Your task to perform on an android device: Go to eBay Image 0: 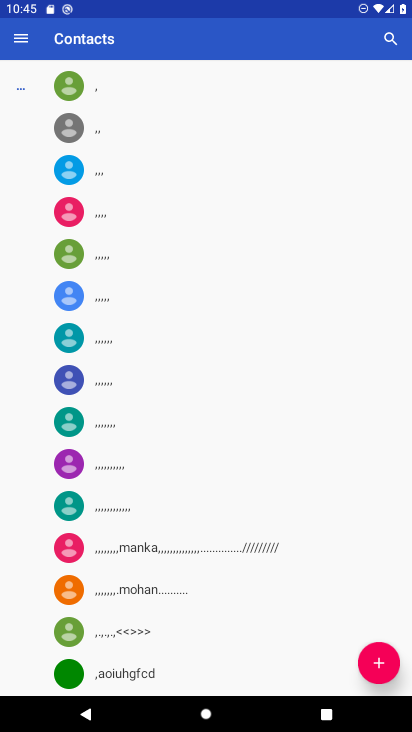
Step 0: press home button
Your task to perform on an android device: Go to eBay Image 1: 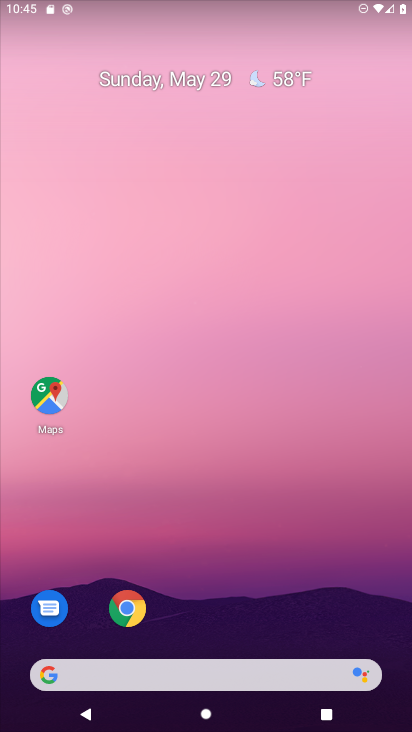
Step 1: drag from (125, 644) to (168, 219)
Your task to perform on an android device: Go to eBay Image 2: 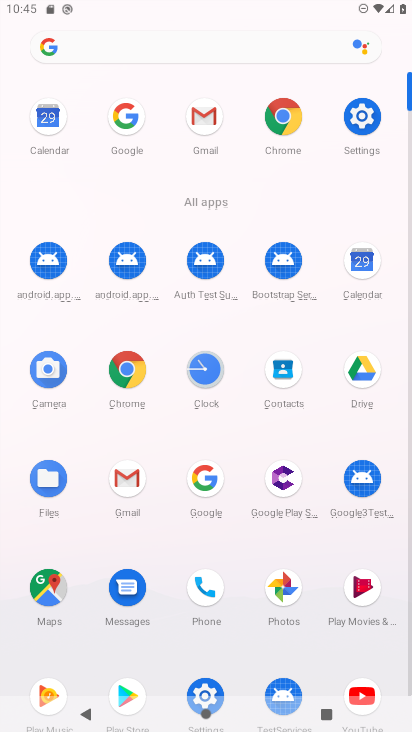
Step 2: click (122, 124)
Your task to perform on an android device: Go to eBay Image 3: 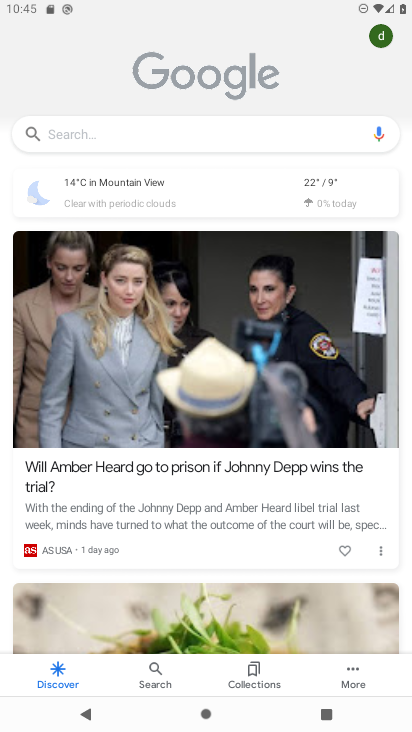
Step 3: drag from (138, 143) to (47, 143)
Your task to perform on an android device: Go to eBay Image 4: 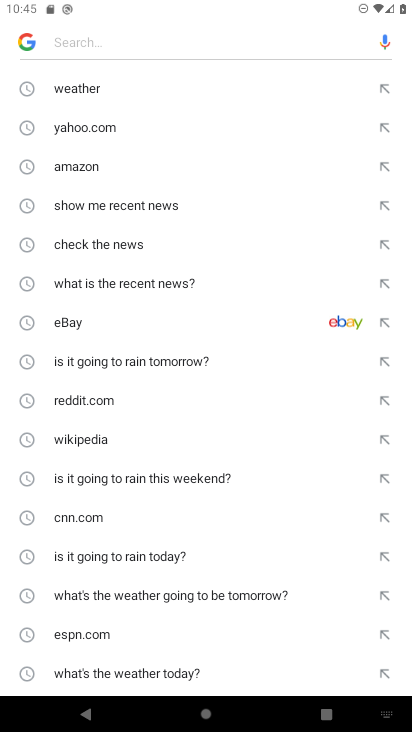
Step 4: click (88, 325)
Your task to perform on an android device: Go to eBay Image 5: 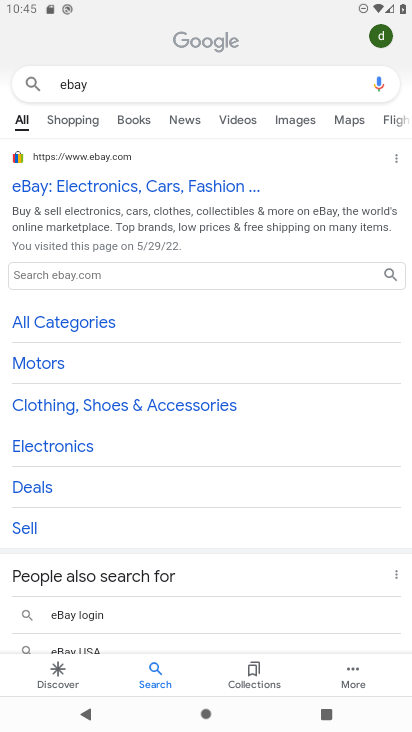
Step 5: click (145, 190)
Your task to perform on an android device: Go to eBay Image 6: 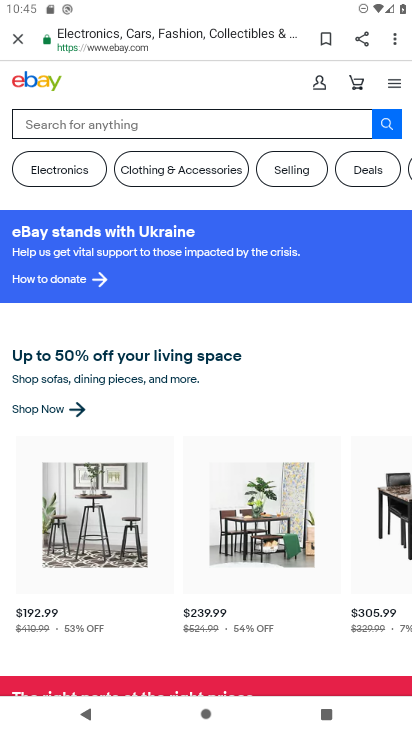
Step 6: task complete